Your task to perform on an android device: turn off location history Image 0: 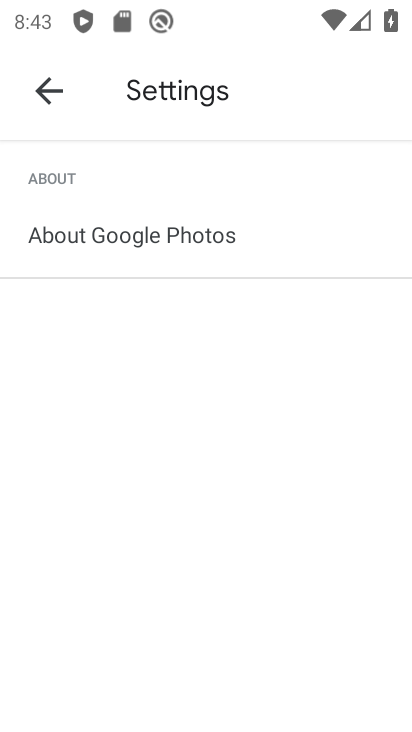
Step 0: press home button
Your task to perform on an android device: turn off location history Image 1: 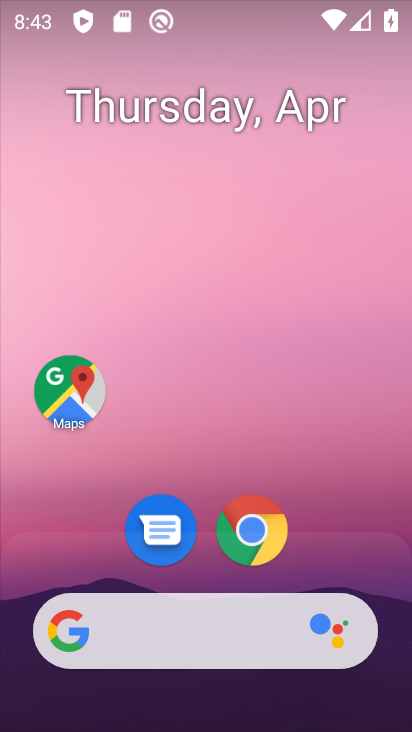
Step 1: drag from (366, 428) to (369, 111)
Your task to perform on an android device: turn off location history Image 2: 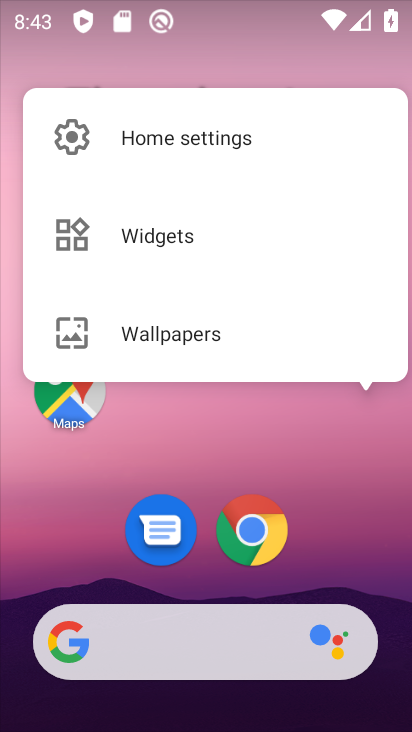
Step 2: click (351, 464)
Your task to perform on an android device: turn off location history Image 3: 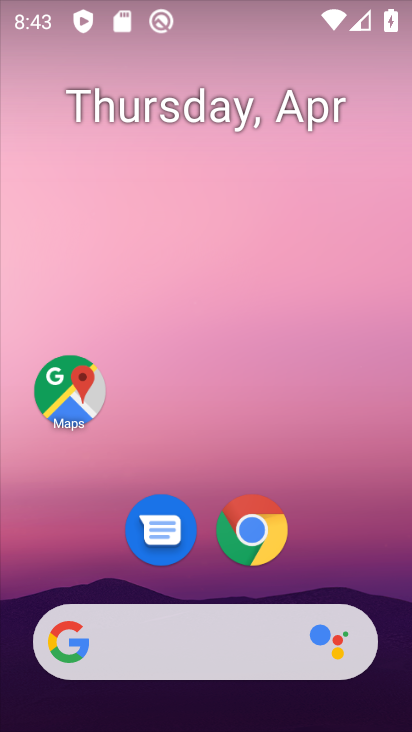
Step 3: drag from (334, 564) to (279, 89)
Your task to perform on an android device: turn off location history Image 4: 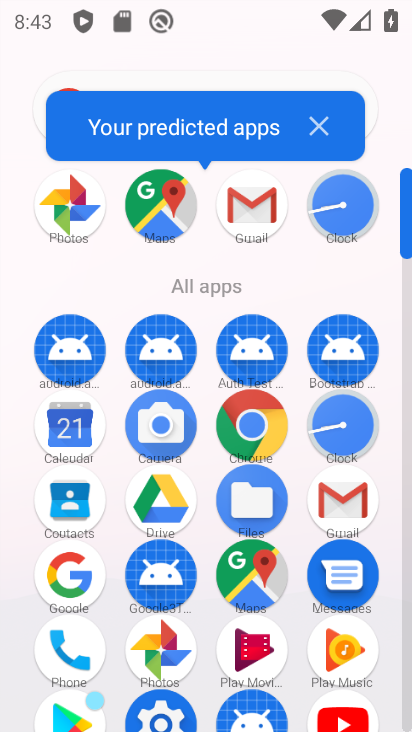
Step 4: drag from (383, 542) to (387, 293)
Your task to perform on an android device: turn off location history Image 5: 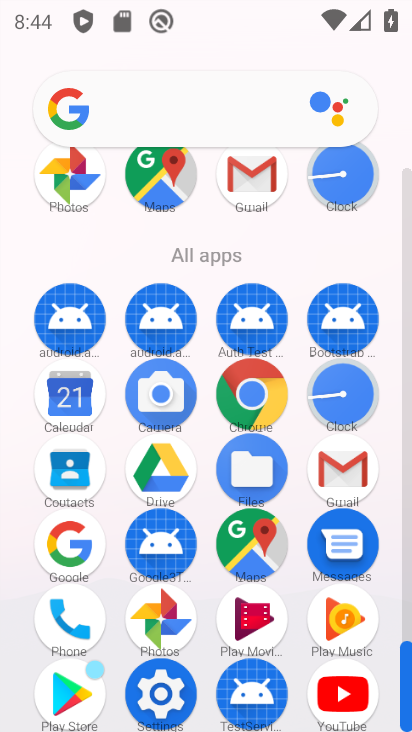
Step 5: click (168, 697)
Your task to perform on an android device: turn off location history Image 6: 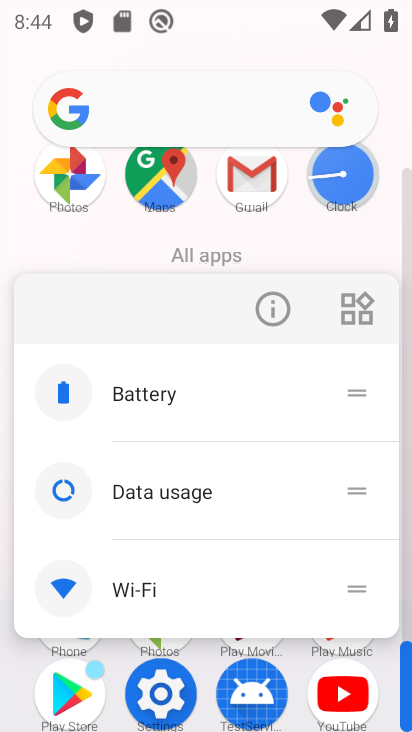
Step 6: click (165, 681)
Your task to perform on an android device: turn off location history Image 7: 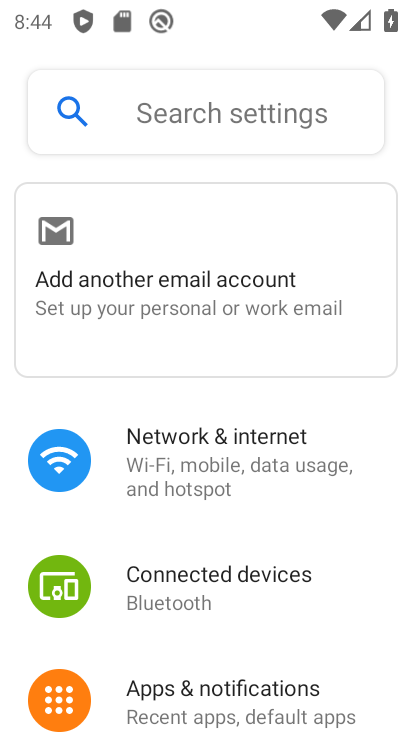
Step 7: drag from (376, 633) to (381, 459)
Your task to perform on an android device: turn off location history Image 8: 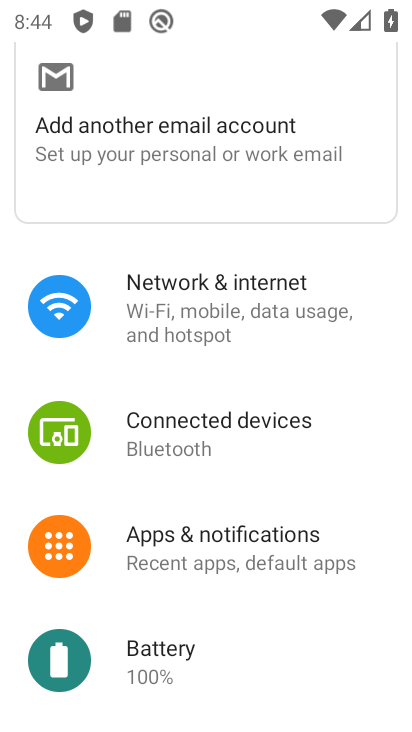
Step 8: drag from (374, 630) to (371, 492)
Your task to perform on an android device: turn off location history Image 9: 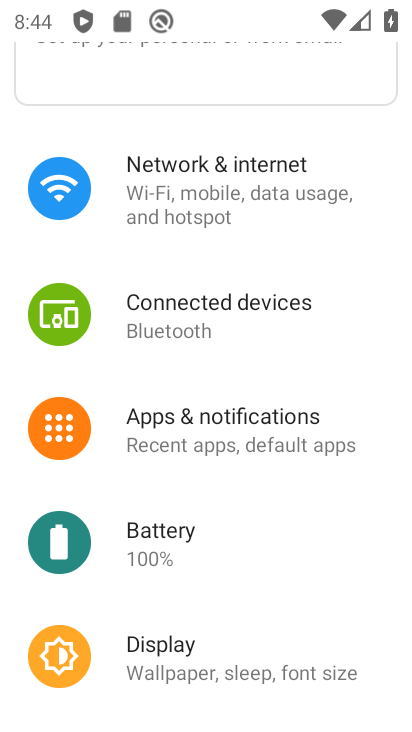
Step 9: drag from (364, 634) to (367, 507)
Your task to perform on an android device: turn off location history Image 10: 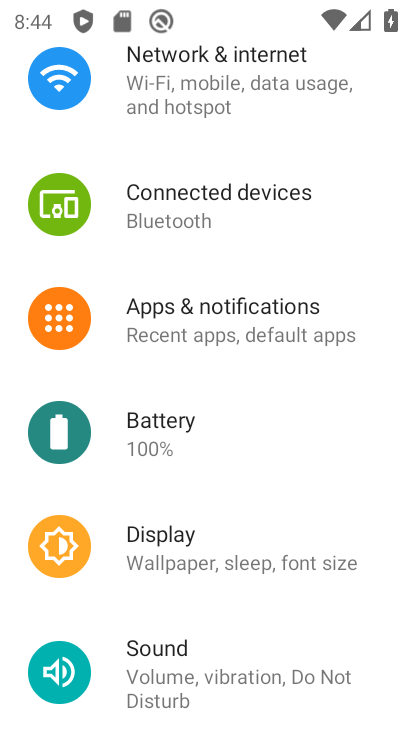
Step 10: drag from (366, 636) to (374, 519)
Your task to perform on an android device: turn off location history Image 11: 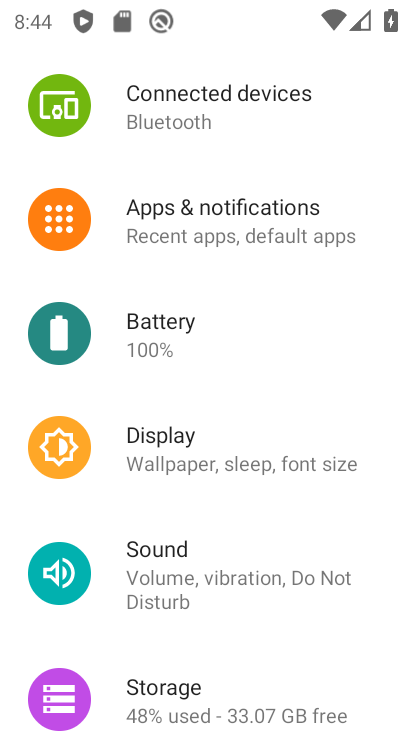
Step 11: drag from (378, 619) to (372, 474)
Your task to perform on an android device: turn off location history Image 12: 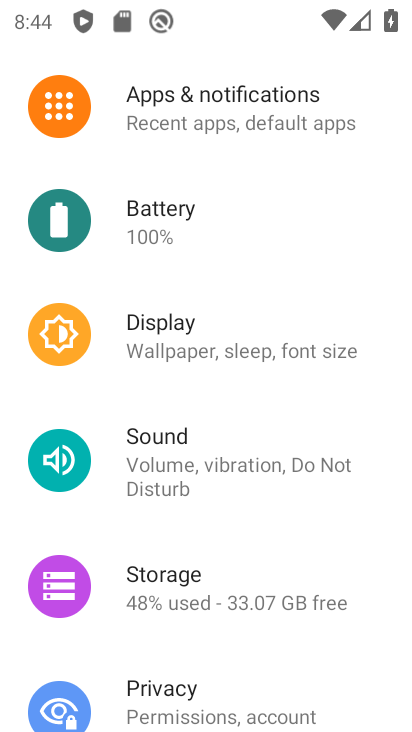
Step 12: drag from (380, 619) to (374, 465)
Your task to perform on an android device: turn off location history Image 13: 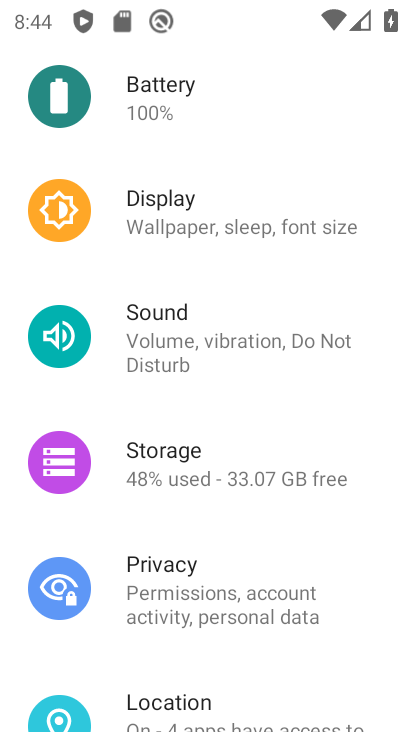
Step 13: drag from (362, 582) to (363, 479)
Your task to perform on an android device: turn off location history Image 14: 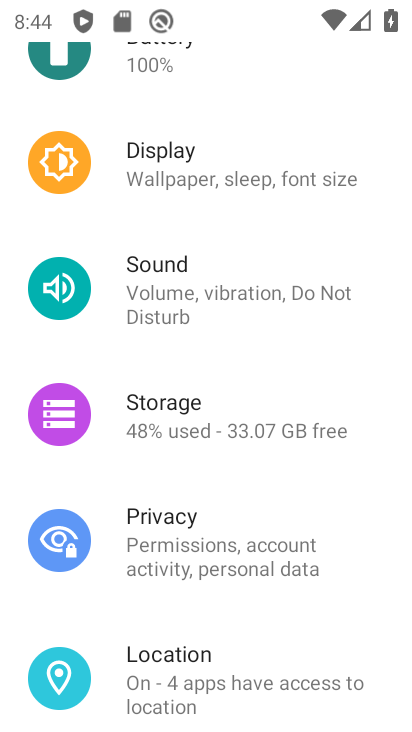
Step 14: drag from (355, 598) to (365, 408)
Your task to perform on an android device: turn off location history Image 15: 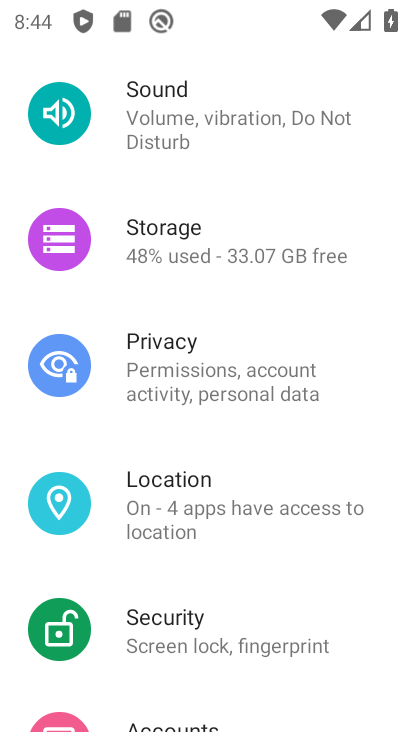
Step 15: click (225, 499)
Your task to perform on an android device: turn off location history Image 16: 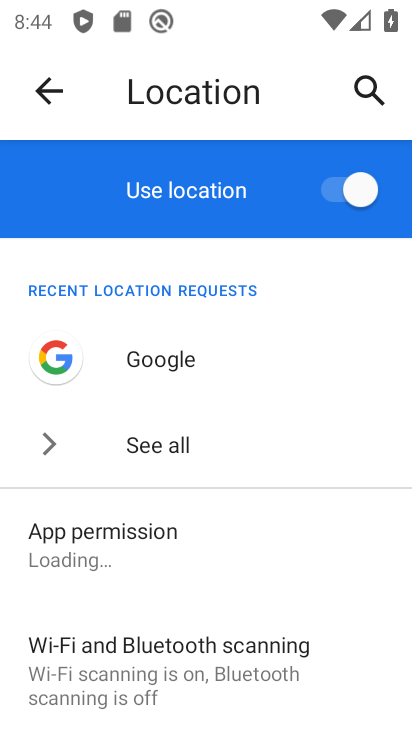
Step 16: drag from (339, 563) to (345, 393)
Your task to perform on an android device: turn off location history Image 17: 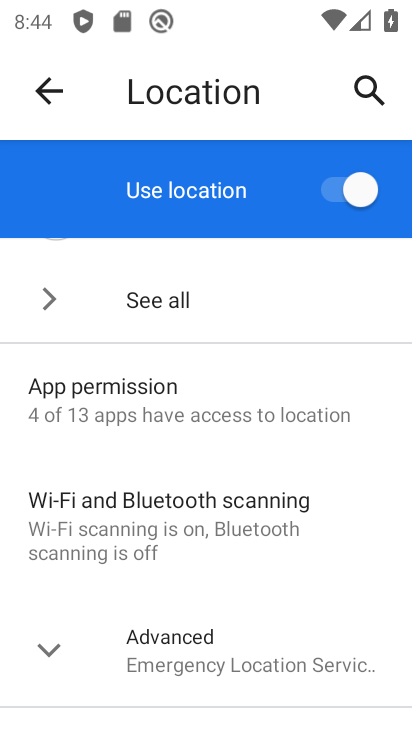
Step 17: click (336, 657)
Your task to perform on an android device: turn off location history Image 18: 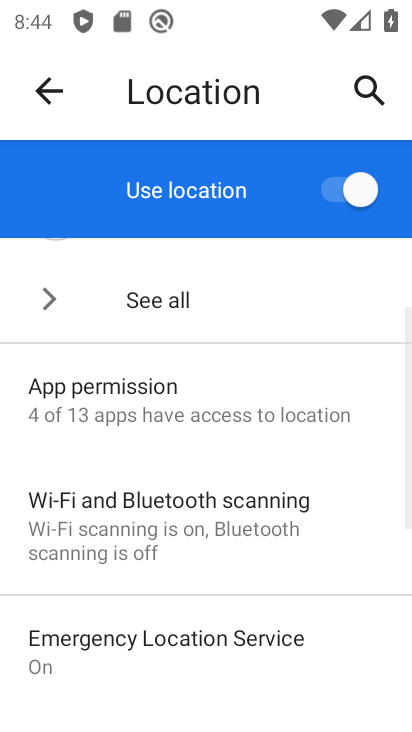
Step 18: task complete